Your task to perform on an android device: open app "Google Maps" (install if not already installed) Image 0: 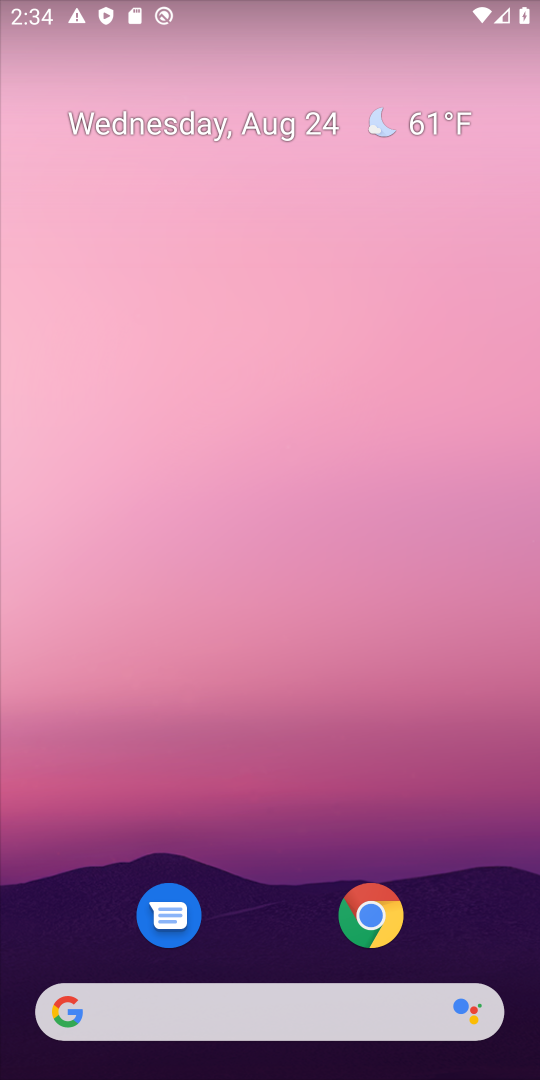
Step 0: drag from (258, 850) to (275, 188)
Your task to perform on an android device: open app "Google Maps" (install if not already installed) Image 1: 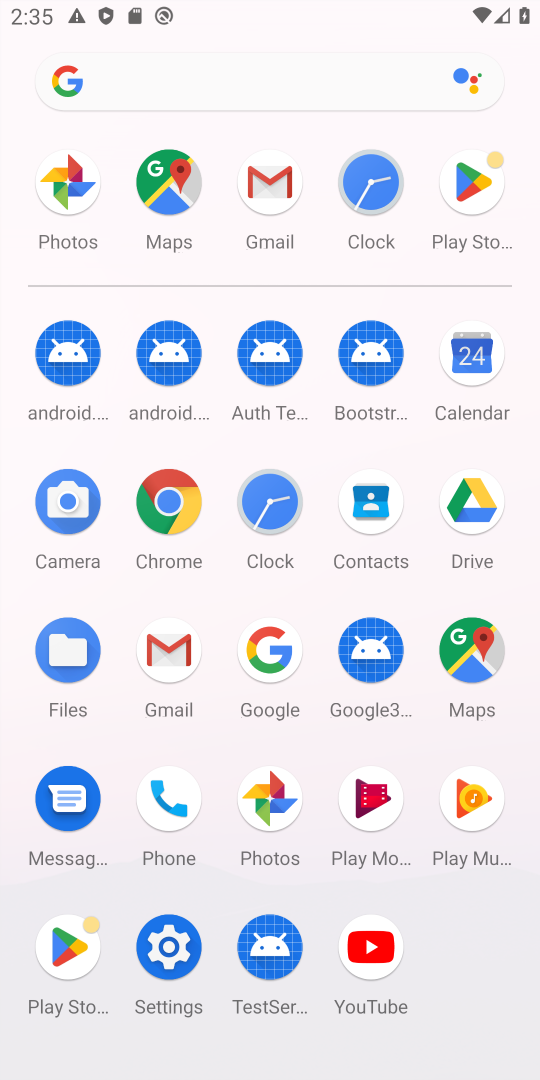
Step 1: click (463, 186)
Your task to perform on an android device: open app "Google Maps" (install if not already installed) Image 2: 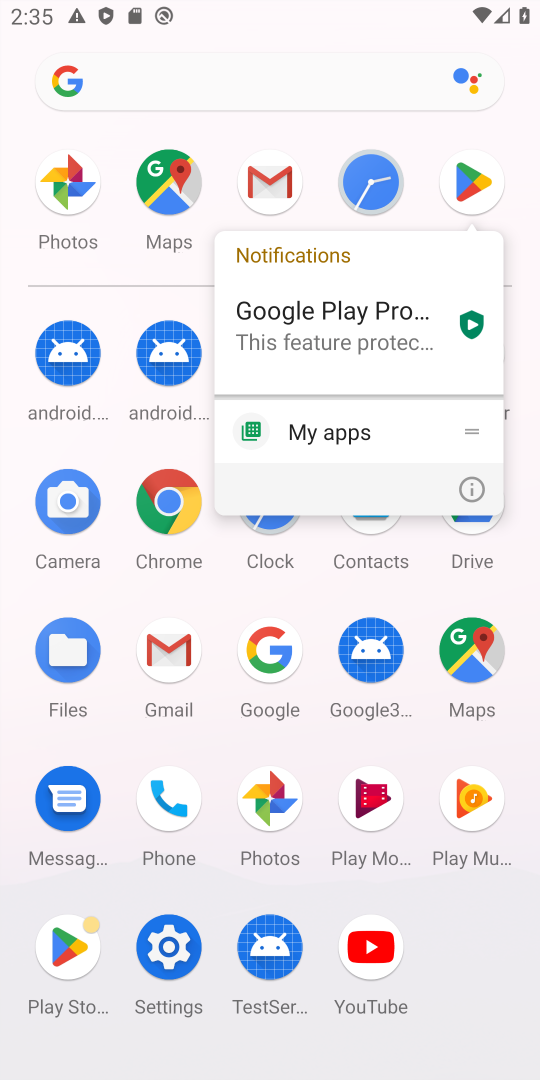
Step 2: click (476, 169)
Your task to perform on an android device: open app "Google Maps" (install if not already installed) Image 3: 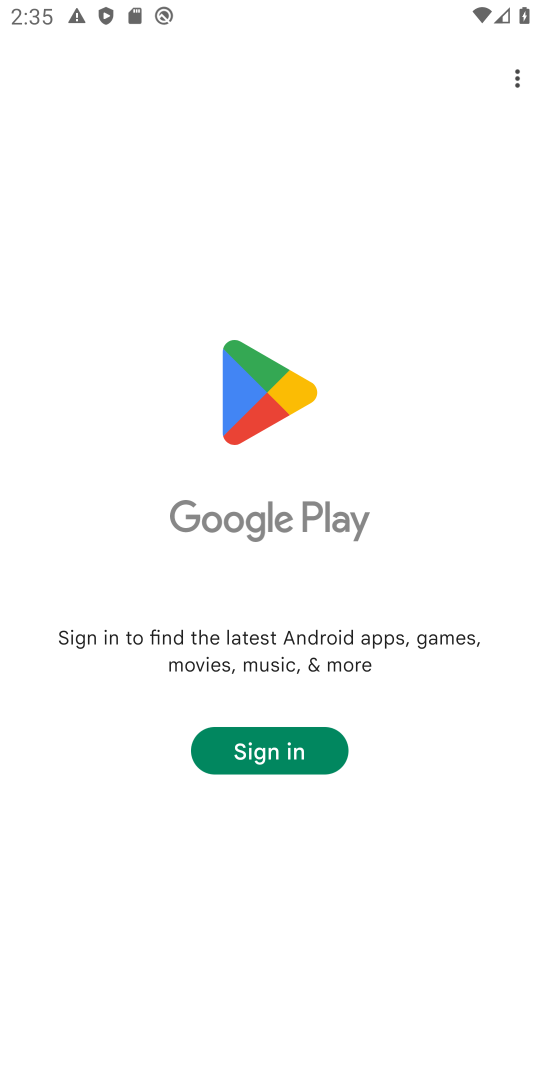
Step 3: task complete